Your task to perform on an android device: Turn on the flashlight Image 0: 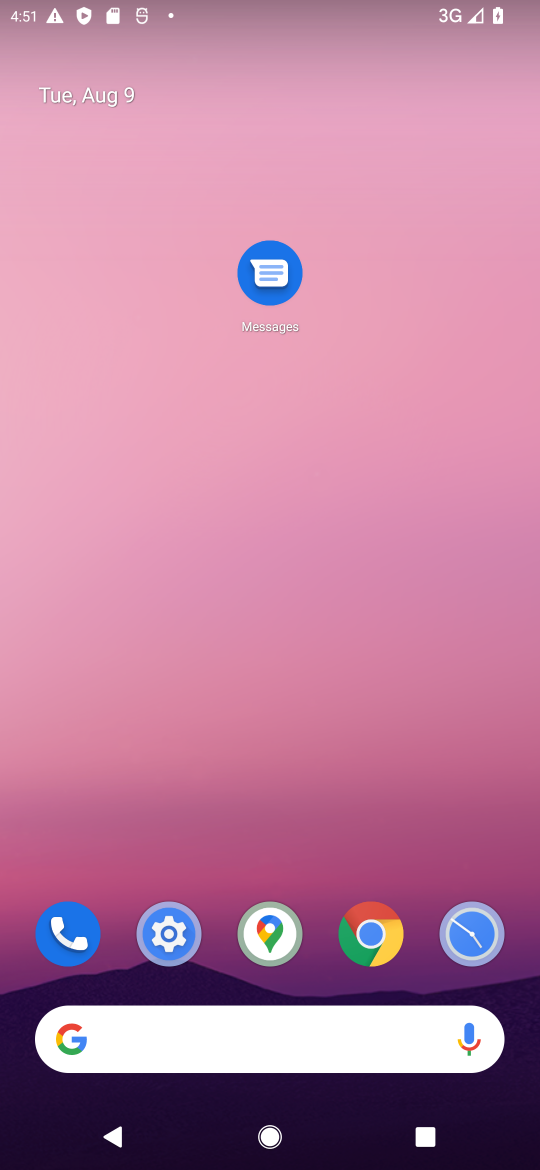
Step 0: click (183, 952)
Your task to perform on an android device: Turn on the flashlight Image 1: 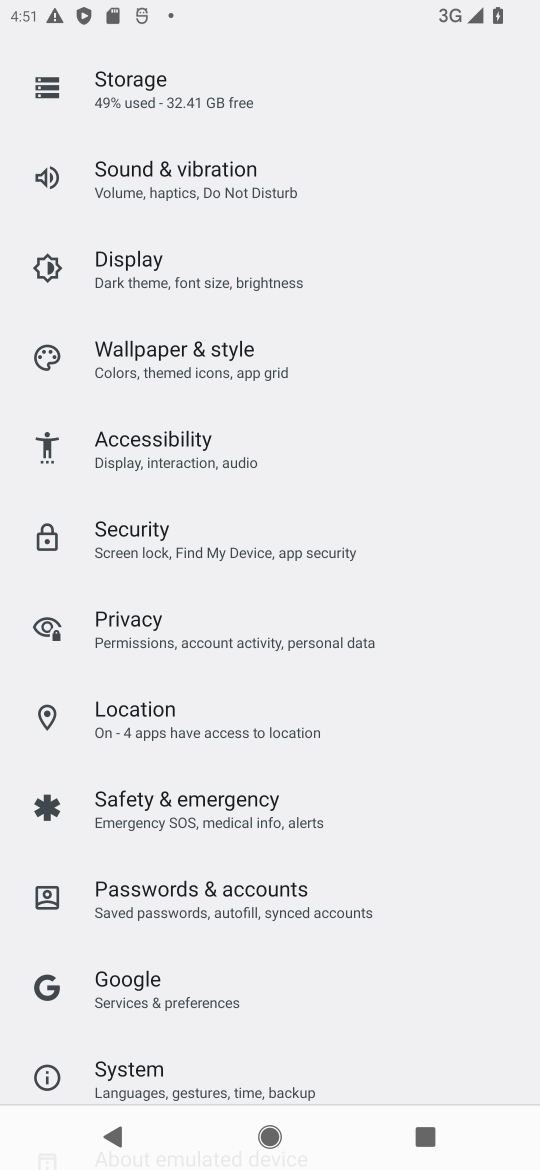
Step 1: task complete